Your task to perform on an android device: Open eBay Image 0: 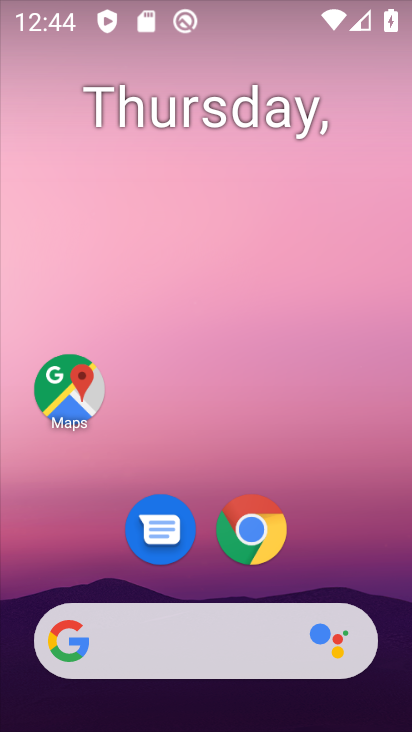
Step 0: drag from (392, 551) to (337, 230)
Your task to perform on an android device: Open eBay Image 1: 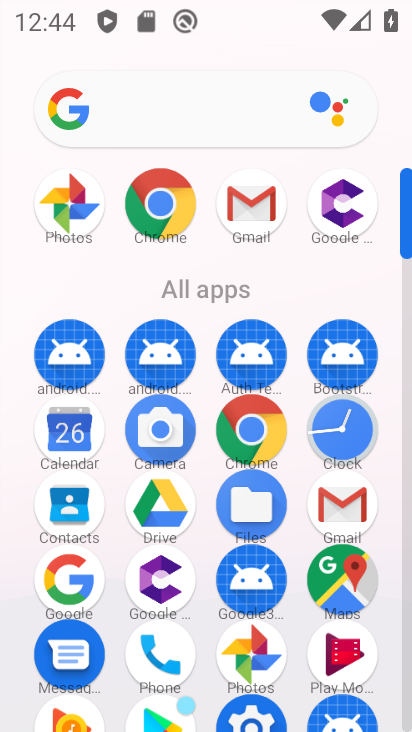
Step 1: click (178, 224)
Your task to perform on an android device: Open eBay Image 2: 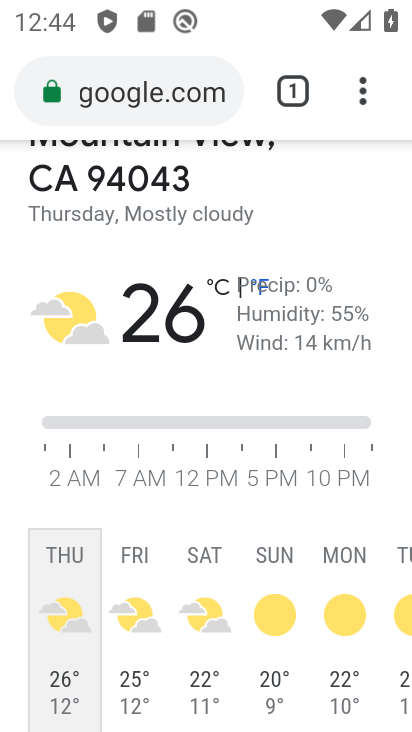
Step 2: click (171, 121)
Your task to perform on an android device: Open eBay Image 3: 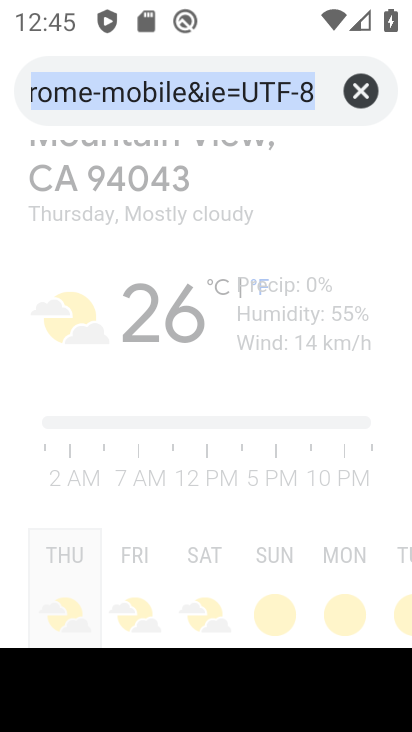
Step 3: click (370, 86)
Your task to perform on an android device: Open eBay Image 4: 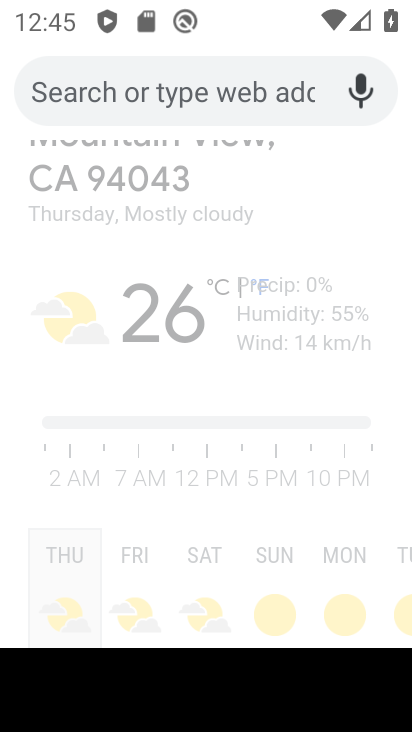
Step 4: type "ebay"
Your task to perform on an android device: Open eBay Image 5: 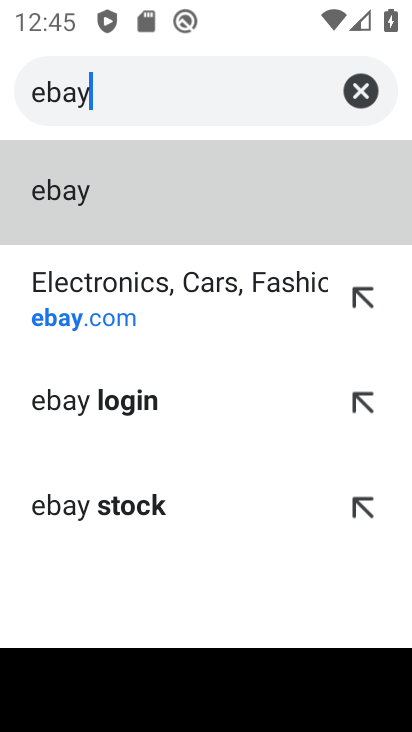
Step 5: click (74, 190)
Your task to perform on an android device: Open eBay Image 6: 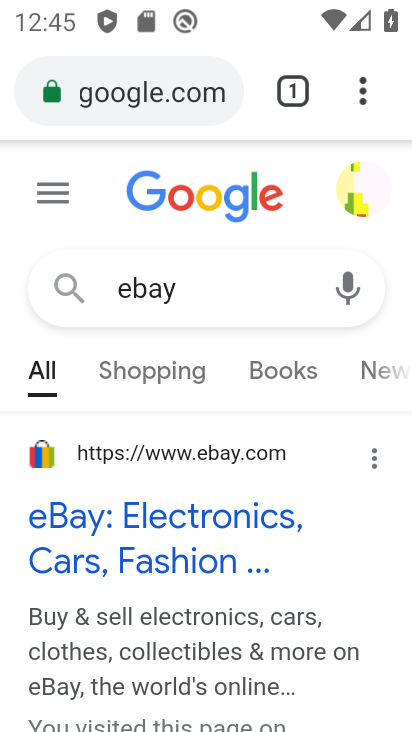
Step 6: click (126, 527)
Your task to perform on an android device: Open eBay Image 7: 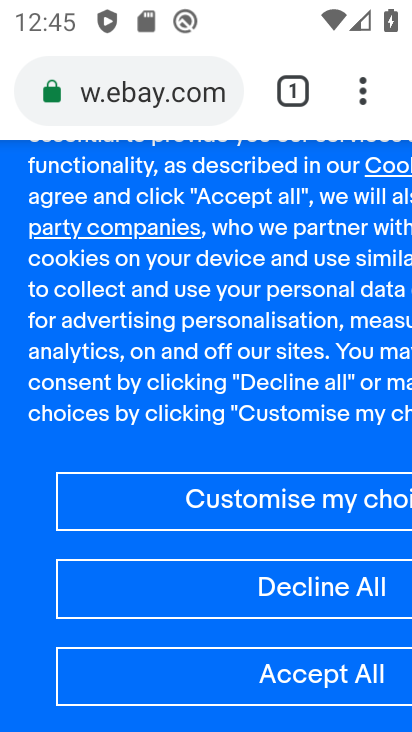
Step 7: task complete